Your task to perform on an android device: turn off airplane mode Image 0: 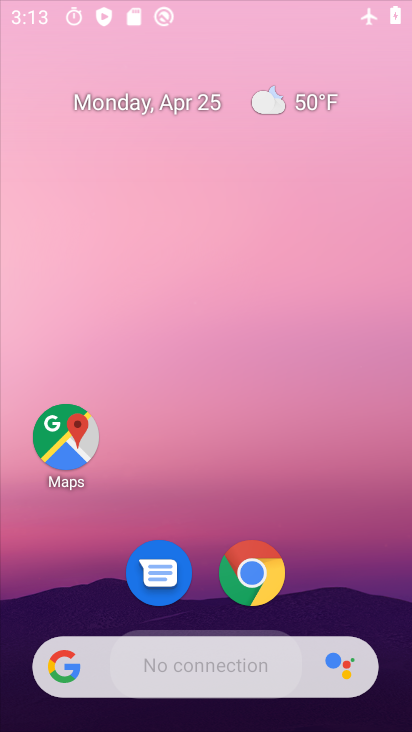
Step 0: click (381, 2)
Your task to perform on an android device: turn off airplane mode Image 1: 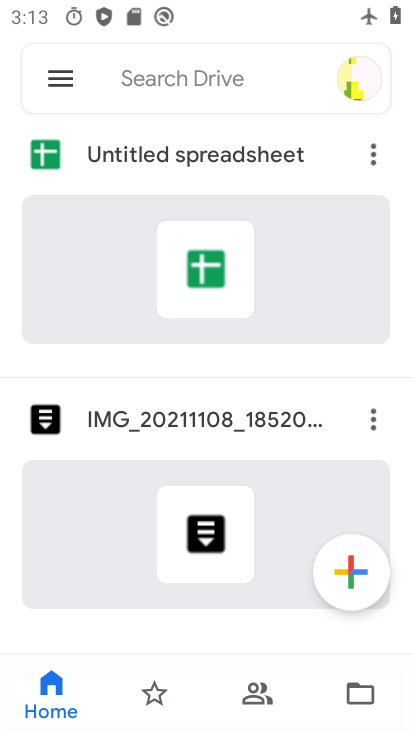
Step 1: press home button
Your task to perform on an android device: turn off airplane mode Image 2: 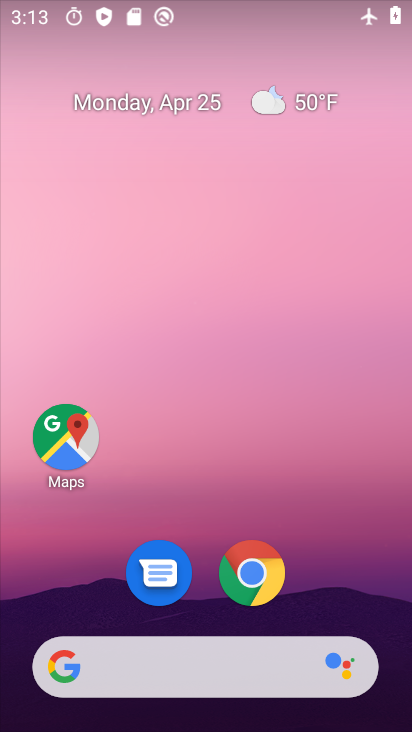
Step 2: drag from (308, 516) to (284, 52)
Your task to perform on an android device: turn off airplane mode Image 3: 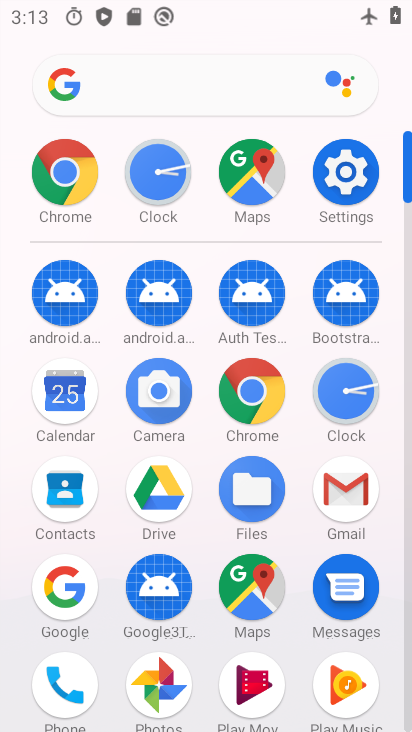
Step 3: click (331, 173)
Your task to perform on an android device: turn off airplane mode Image 4: 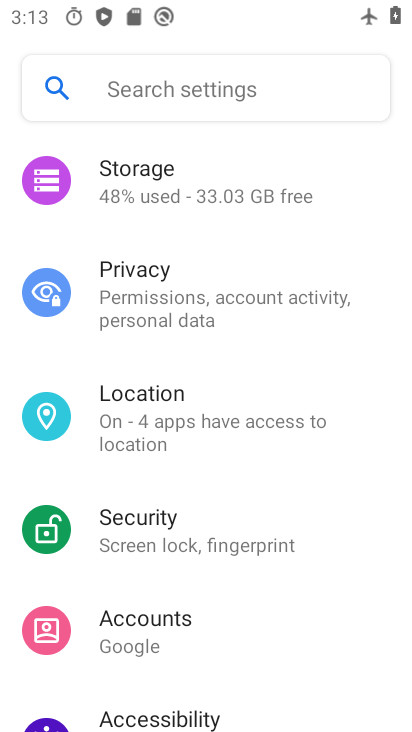
Step 4: drag from (249, 415) to (276, 585)
Your task to perform on an android device: turn off airplane mode Image 5: 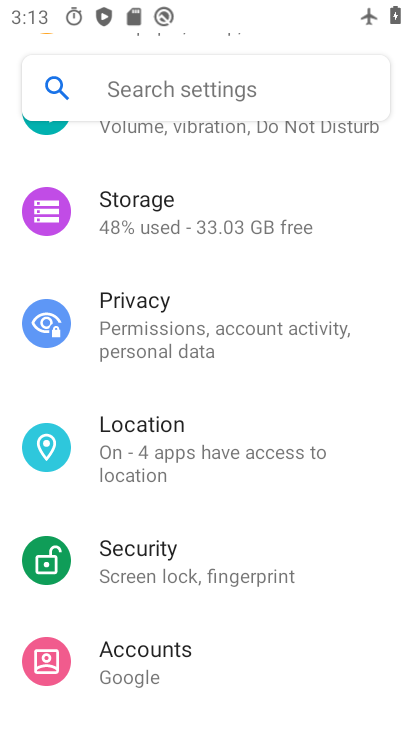
Step 5: drag from (275, 172) to (381, 591)
Your task to perform on an android device: turn off airplane mode Image 6: 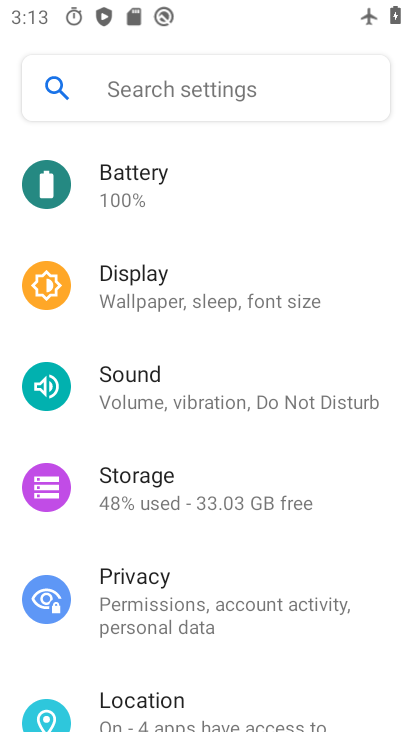
Step 6: drag from (246, 351) to (304, 607)
Your task to perform on an android device: turn off airplane mode Image 7: 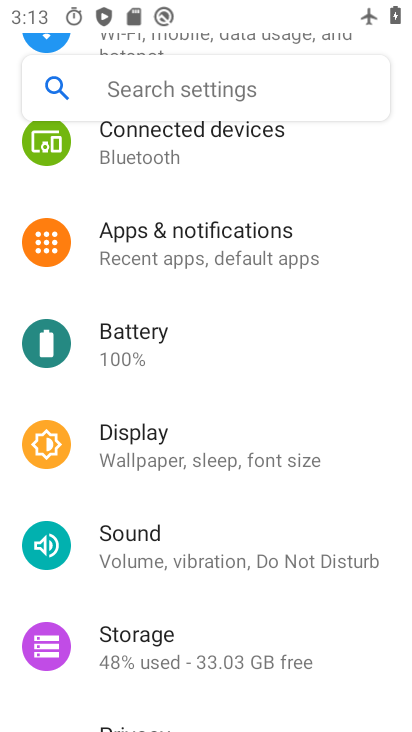
Step 7: drag from (330, 258) to (357, 659)
Your task to perform on an android device: turn off airplane mode Image 8: 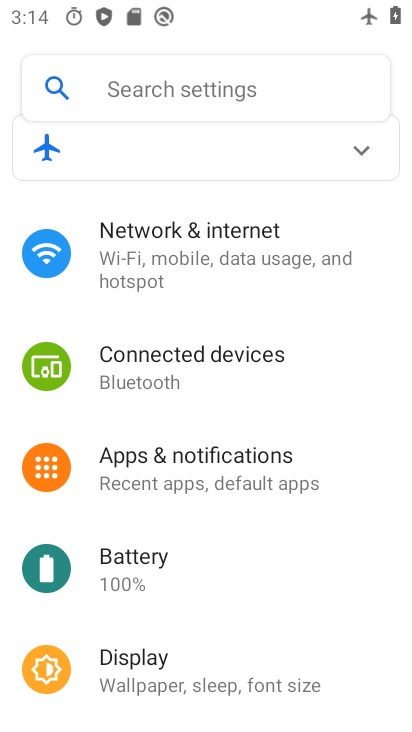
Step 8: click (163, 234)
Your task to perform on an android device: turn off airplane mode Image 9: 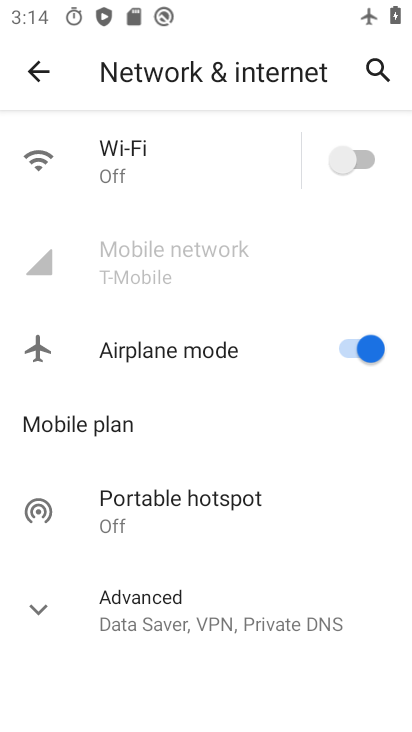
Step 9: click (337, 375)
Your task to perform on an android device: turn off airplane mode Image 10: 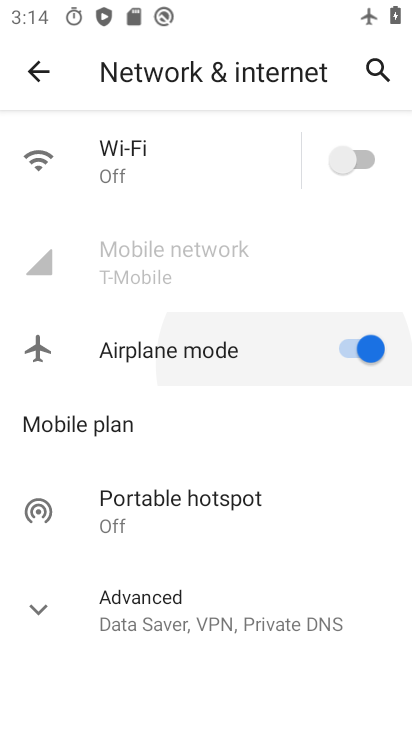
Step 10: click (353, 354)
Your task to perform on an android device: turn off airplane mode Image 11: 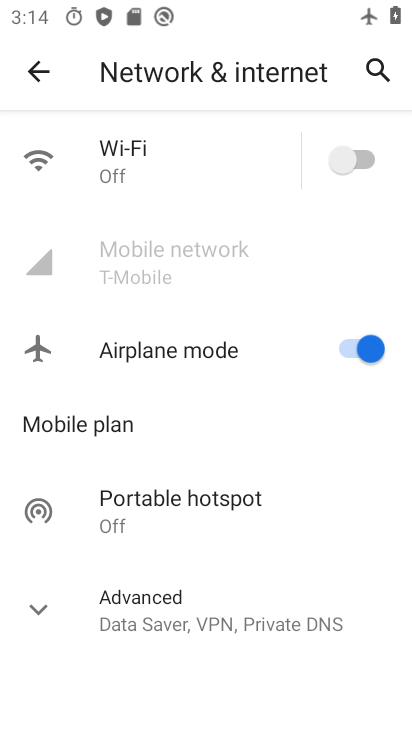
Step 11: task complete